Your task to perform on an android device: open app "Nova Launcher" (install if not already installed) Image 0: 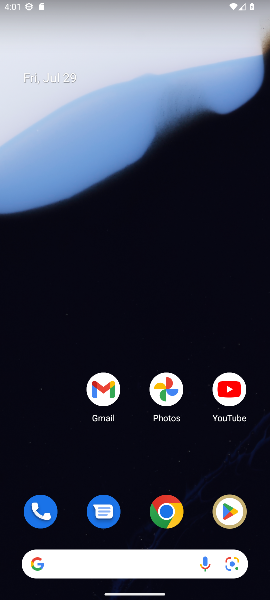
Step 0: drag from (67, 553) to (184, 237)
Your task to perform on an android device: open app "Nova Launcher" (install if not already installed) Image 1: 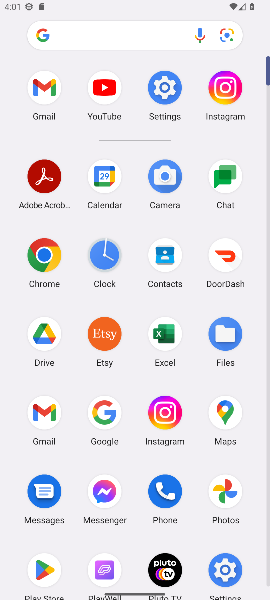
Step 1: click (37, 567)
Your task to perform on an android device: open app "Nova Launcher" (install if not already installed) Image 2: 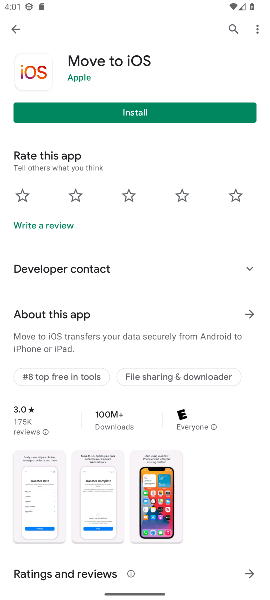
Step 2: click (15, 22)
Your task to perform on an android device: open app "Nova Launcher" (install if not already installed) Image 3: 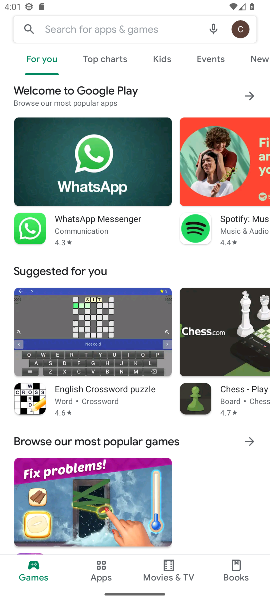
Step 3: click (52, 27)
Your task to perform on an android device: open app "Nova Launcher" (install if not already installed) Image 4: 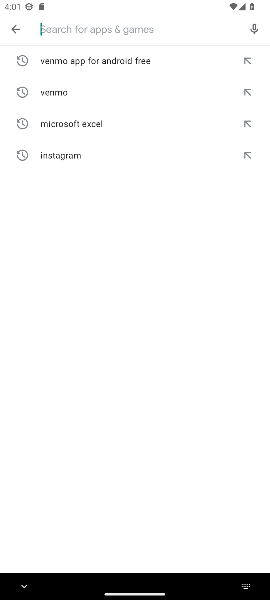
Step 4: type "Nova Launcher"
Your task to perform on an android device: open app "Nova Launcher" (install if not already installed) Image 5: 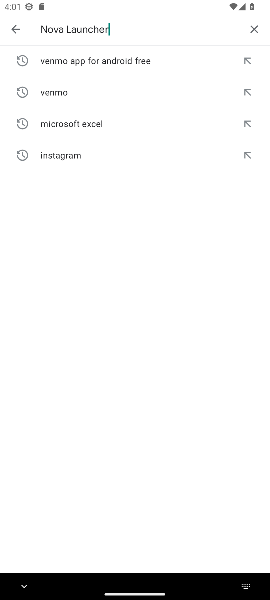
Step 5: type ""
Your task to perform on an android device: open app "Nova Launcher" (install if not already installed) Image 6: 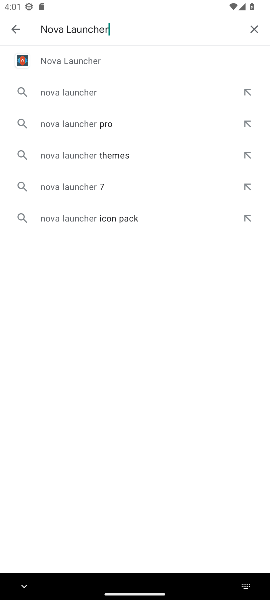
Step 6: click (62, 64)
Your task to perform on an android device: open app "Nova Launcher" (install if not already installed) Image 7: 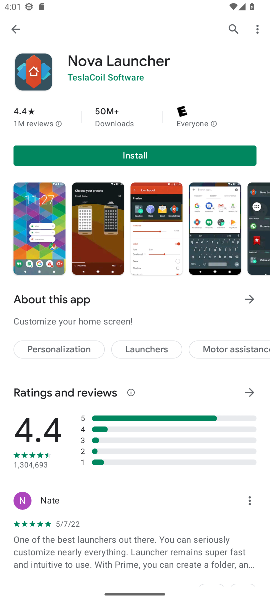
Step 7: click (91, 153)
Your task to perform on an android device: open app "Nova Launcher" (install if not already installed) Image 8: 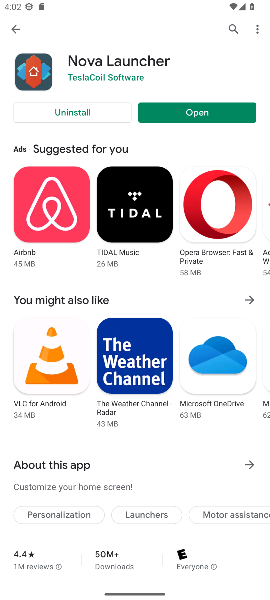
Step 8: task complete